Your task to perform on an android device: toggle javascript in the chrome app Image 0: 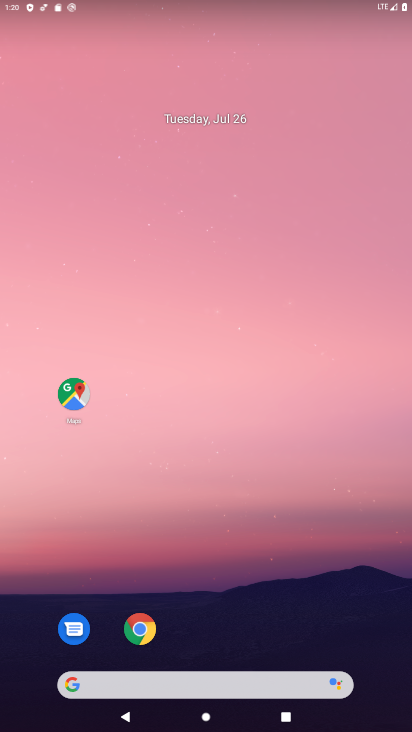
Step 0: drag from (367, 695) to (289, 216)
Your task to perform on an android device: toggle javascript in the chrome app Image 1: 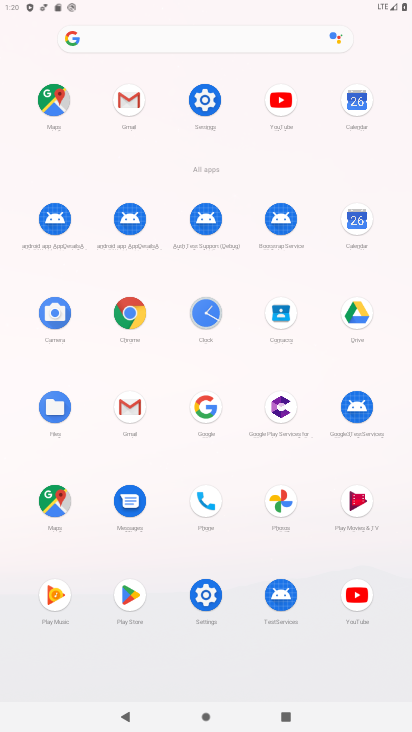
Step 1: click (135, 311)
Your task to perform on an android device: toggle javascript in the chrome app Image 2: 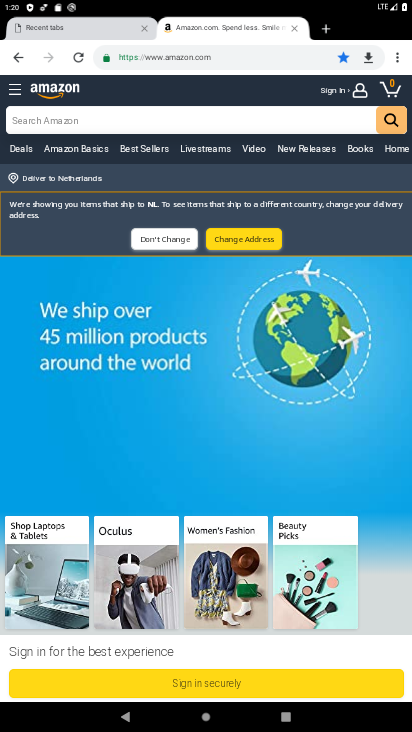
Step 2: click (395, 63)
Your task to perform on an android device: toggle javascript in the chrome app Image 3: 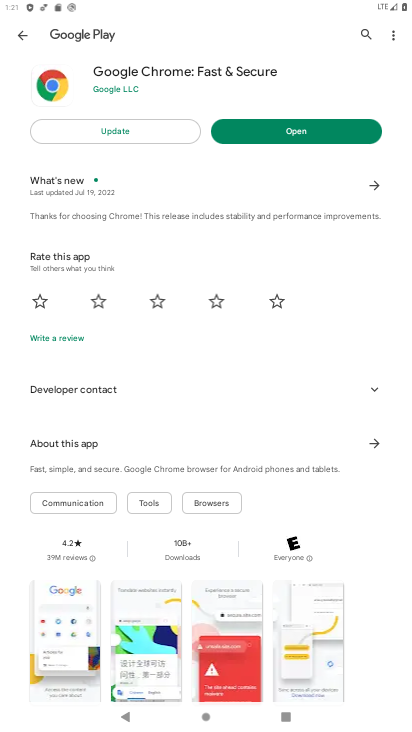
Step 3: click (303, 132)
Your task to perform on an android device: toggle javascript in the chrome app Image 4: 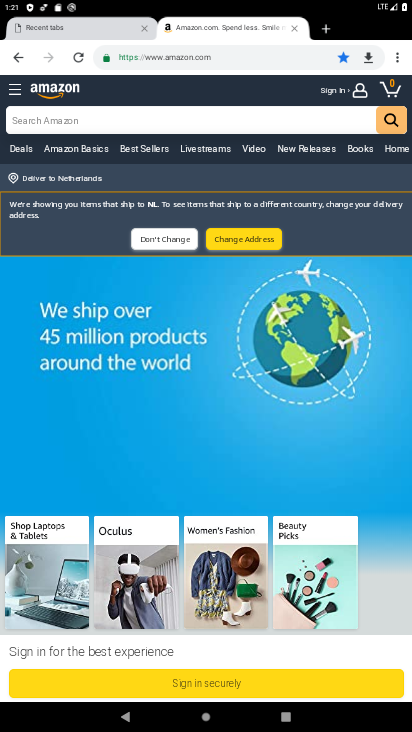
Step 4: click (398, 58)
Your task to perform on an android device: toggle javascript in the chrome app Image 5: 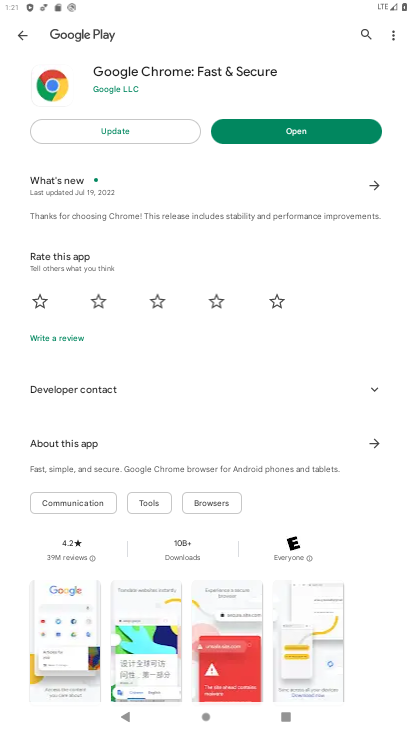
Step 5: click (18, 38)
Your task to perform on an android device: toggle javascript in the chrome app Image 6: 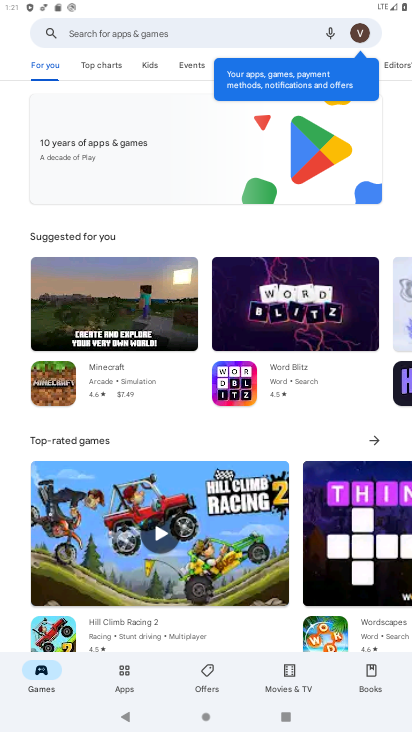
Step 6: press back button
Your task to perform on an android device: toggle javascript in the chrome app Image 7: 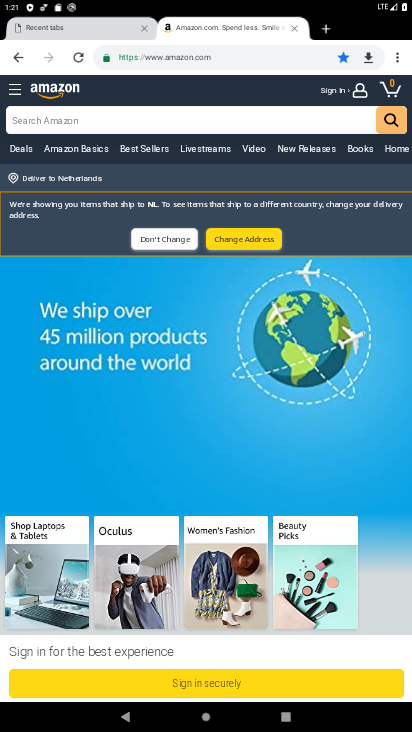
Step 7: click (398, 59)
Your task to perform on an android device: toggle javascript in the chrome app Image 8: 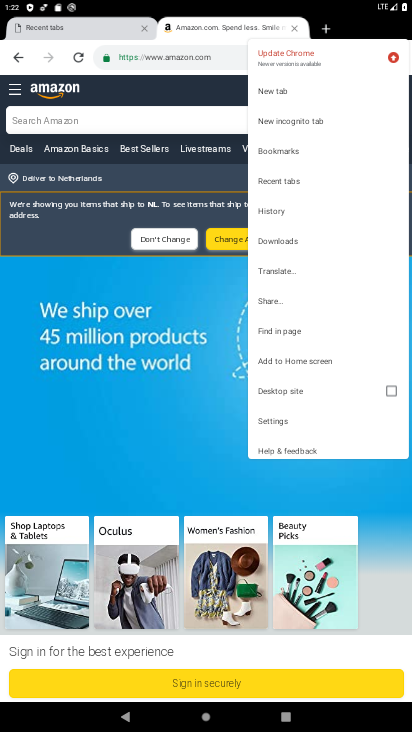
Step 8: click (264, 418)
Your task to perform on an android device: toggle javascript in the chrome app Image 9: 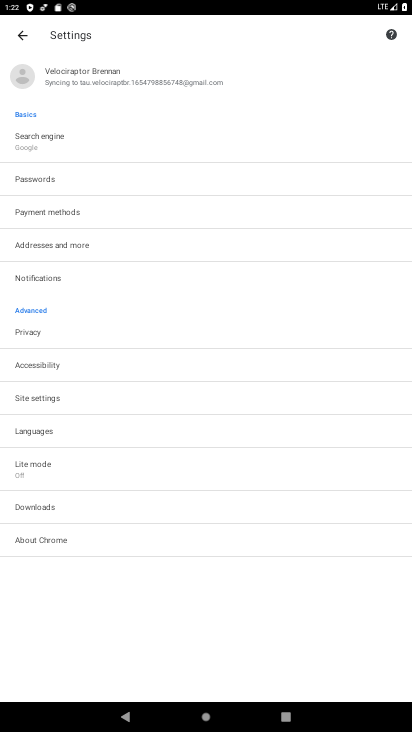
Step 9: click (47, 398)
Your task to perform on an android device: toggle javascript in the chrome app Image 10: 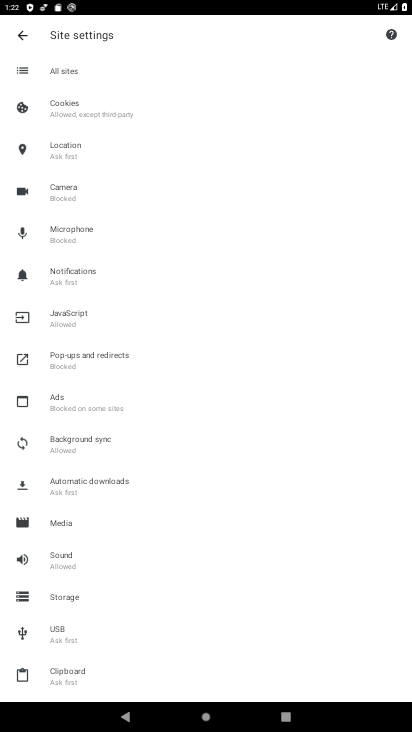
Step 10: click (74, 311)
Your task to perform on an android device: toggle javascript in the chrome app Image 11: 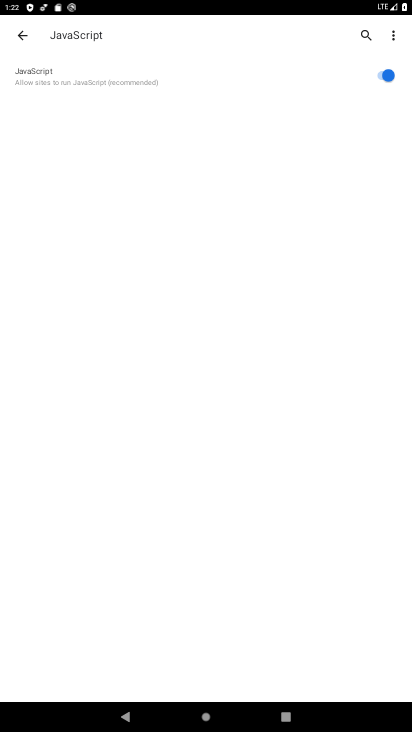
Step 11: click (388, 76)
Your task to perform on an android device: toggle javascript in the chrome app Image 12: 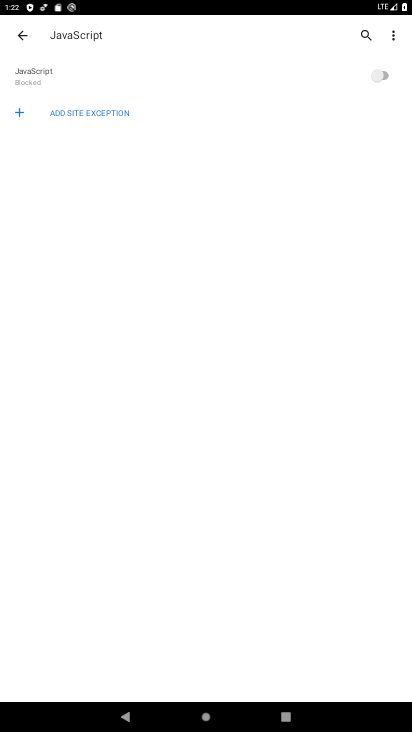
Step 12: task complete